Your task to perform on an android device: Open Chrome and go to settings Image 0: 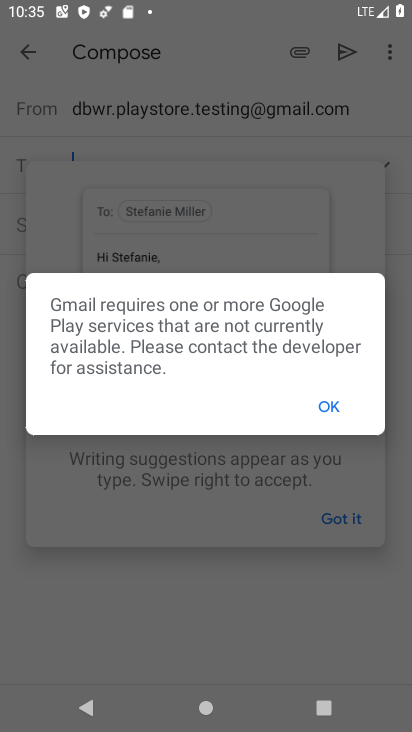
Step 0: press home button
Your task to perform on an android device: Open Chrome and go to settings Image 1: 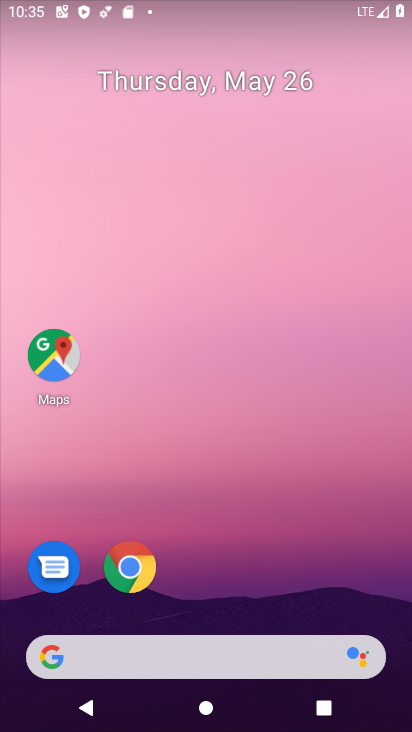
Step 1: click (141, 571)
Your task to perform on an android device: Open Chrome and go to settings Image 2: 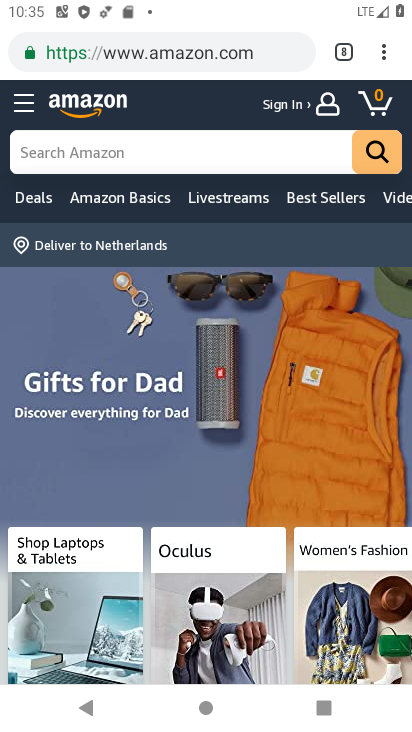
Step 2: click (389, 49)
Your task to perform on an android device: Open Chrome and go to settings Image 3: 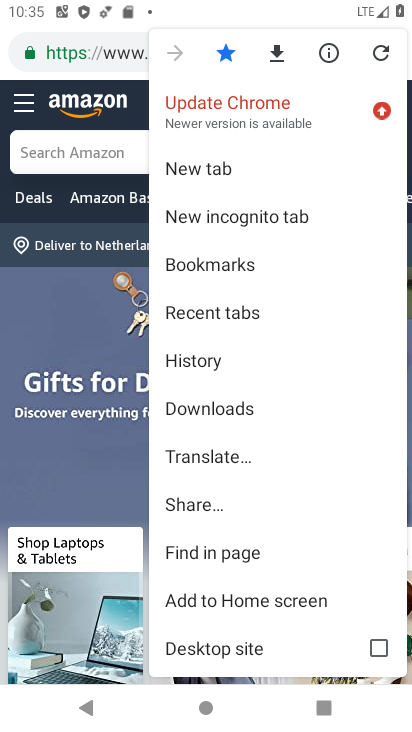
Step 3: drag from (300, 604) to (303, 40)
Your task to perform on an android device: Open Chrome and go to settings Image 4: 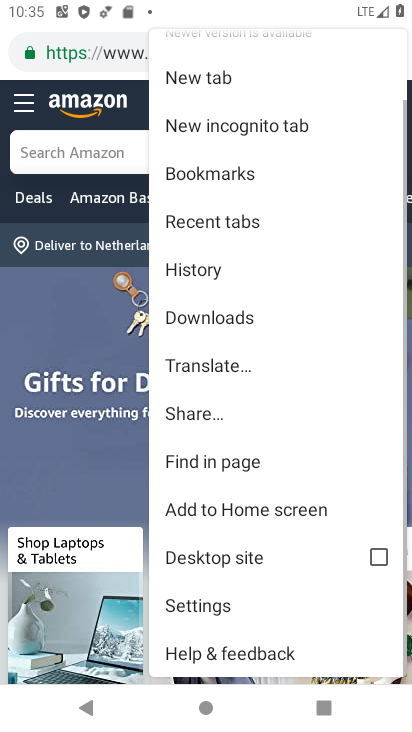
Step 4: click (227, 600)
Your task to perform on an android device: Open Chrome and go to settings Image 5: 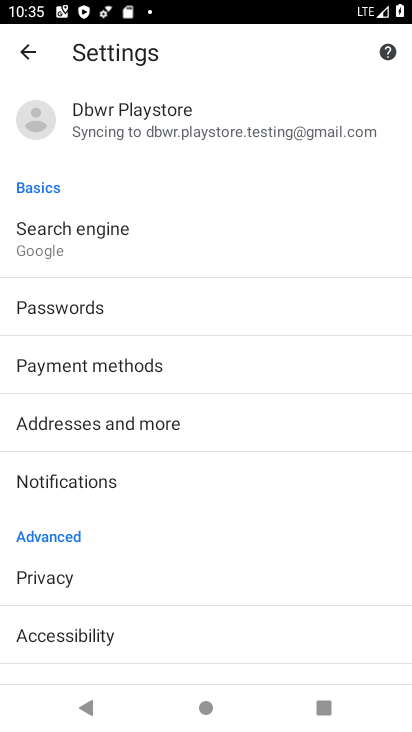
Step 5: task complete